Your task to perform on an android device: open sync settings in chrome Image 0: 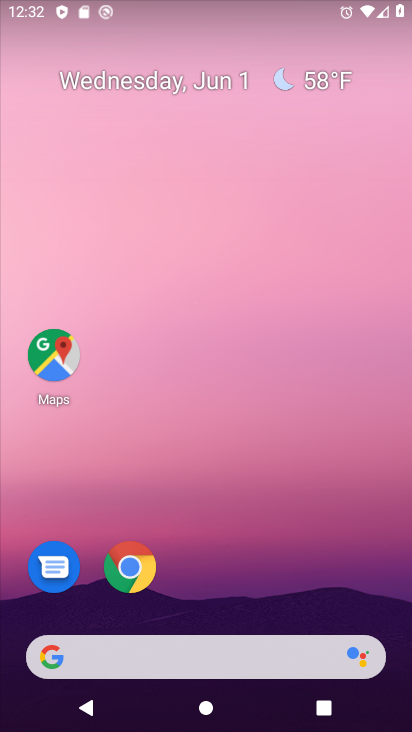
Step 0: click (137, 567)
Your task to perform on an android device: open sync settings in chrome Image 1: 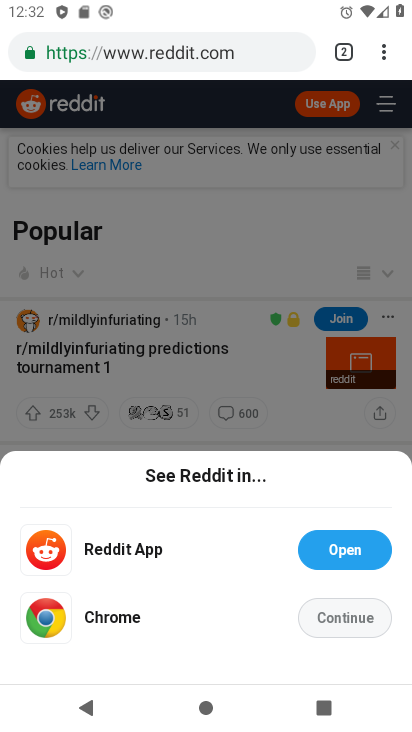
Step 1: click (366, 52)
Your task to perform on an android device: open sync settings in chrome Image 2: 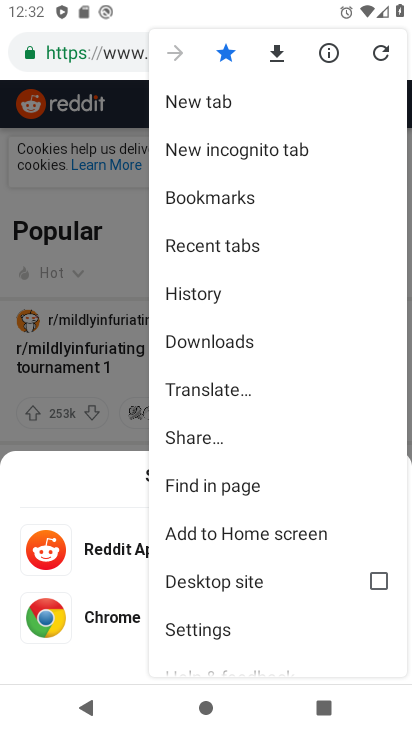
Step 2: click (206, 626)
Your task to perform on an android device: open sync settings in chrome Image 3: 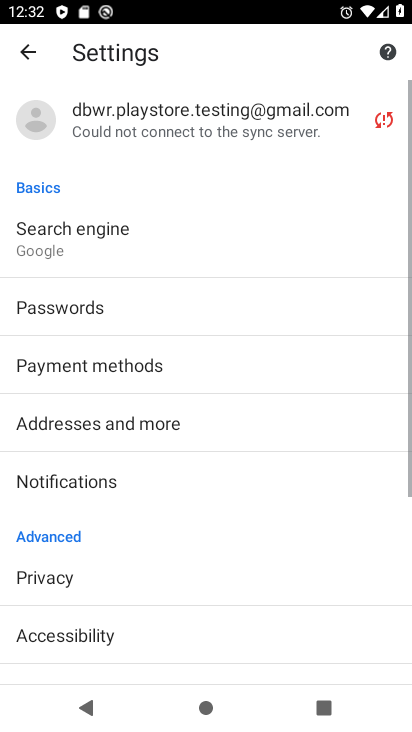
Step 3: drag from (304, 596) to (259, 157)
Your task to perform on an android device: open sync settings in chrome Image 4: 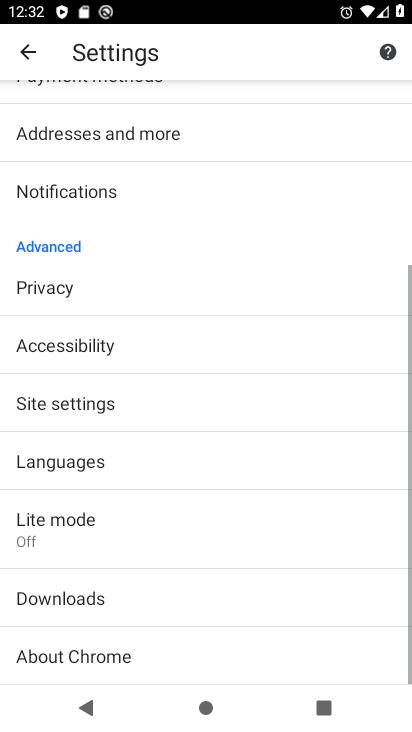
Step 4: click (69, 397)
Your task to perform on an android device: open sync settings in chrome Image 5: 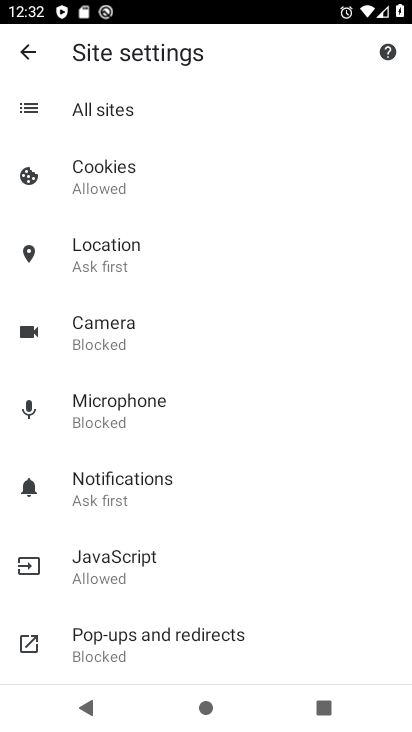
Step 5: drag from (237, 453) to (228, 274)
Your task to perform on an android device: open sync settings in chrome Image 6: 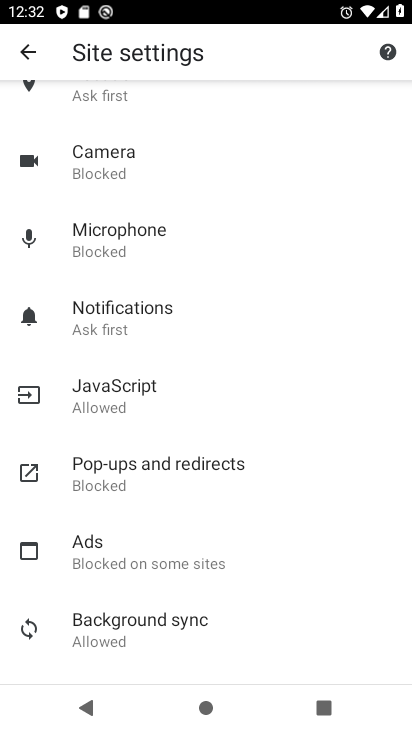
Step 6: click (147, 628)
Your task to perform on an android device: open sync settings in chrome Image 7: 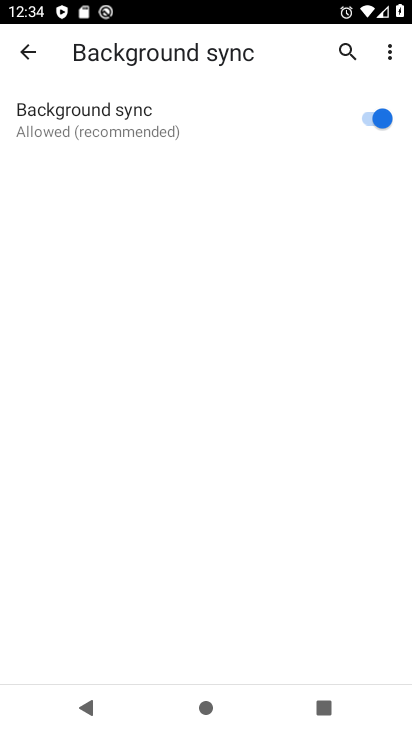
Step 7: task complete